Your task to perform on an android device: Go to Google maps Image 0: 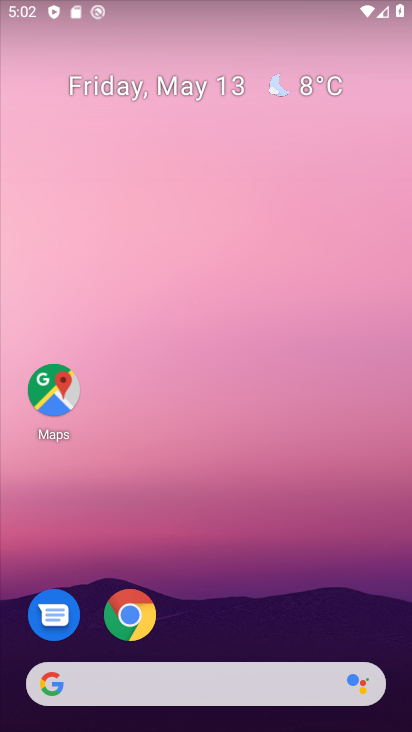
Step 0: drag from (187, 470) to (230, 0)
Your task to perform on an android device: Go to Google maps Image 1: 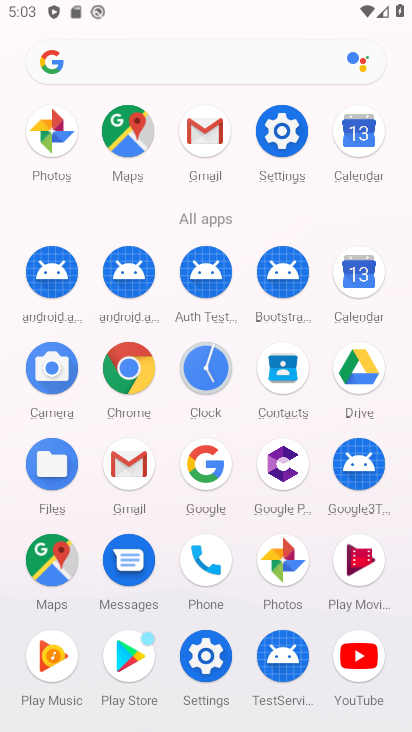
Step 1: drag from (11, 485) to (12, 141)
Your task to perform on an android device: Go to Google maps Image 2: 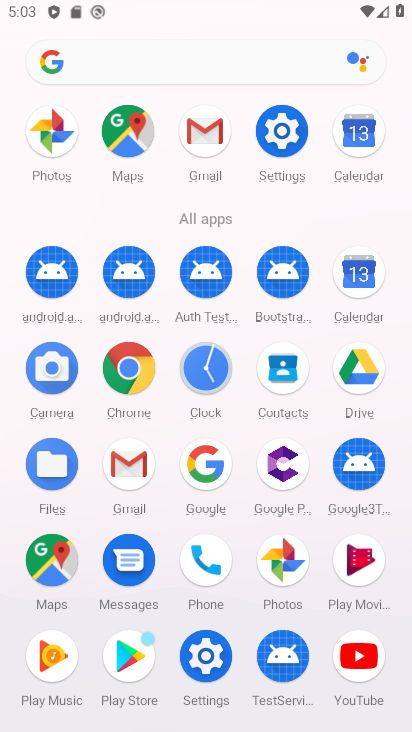
Step 2: click (48, 554)
Your task to perform on an android device: Go to Google maps Image 3: 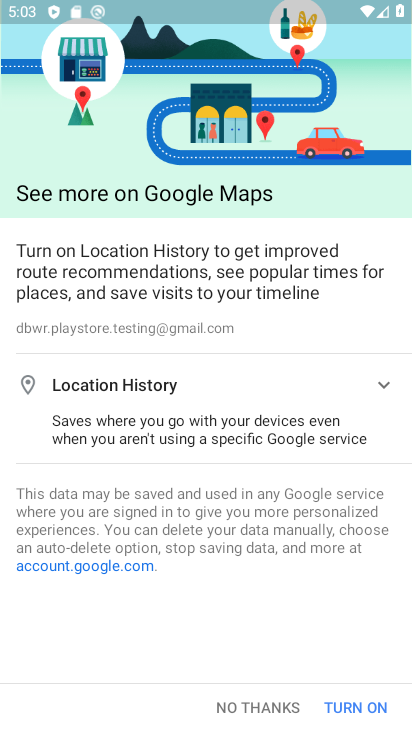
Step 3: click (339, 692)
Your task to perform on an android device: Go to Google maps Image 4: 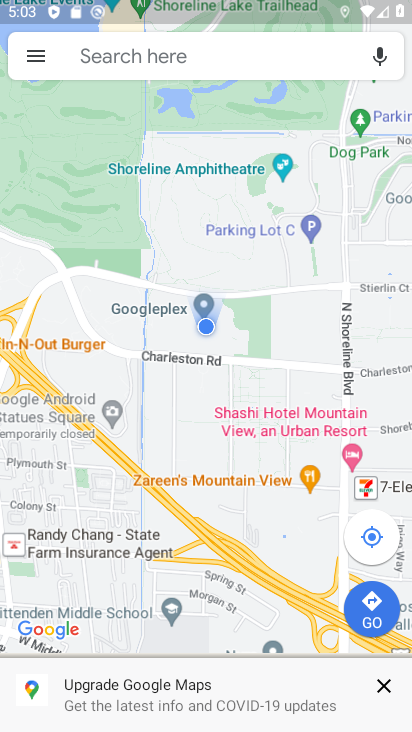
Step 4: task complete